Your task to perform on an android device: add a label to a message in the gmail app Image 0: 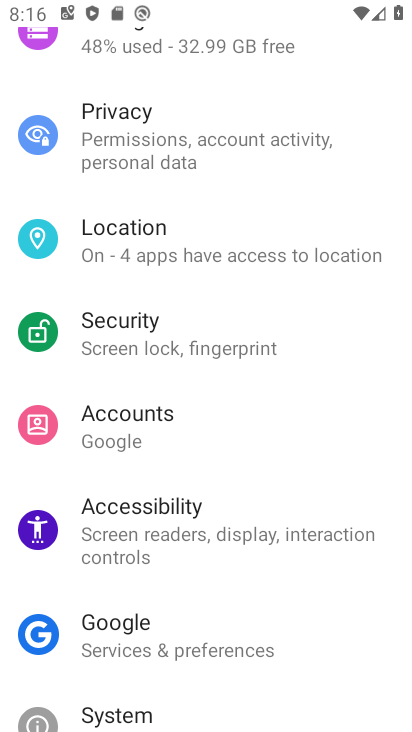
Step 0: press back button
Your task to perform on an android device: add a label to a message in the gmail app Image 1: 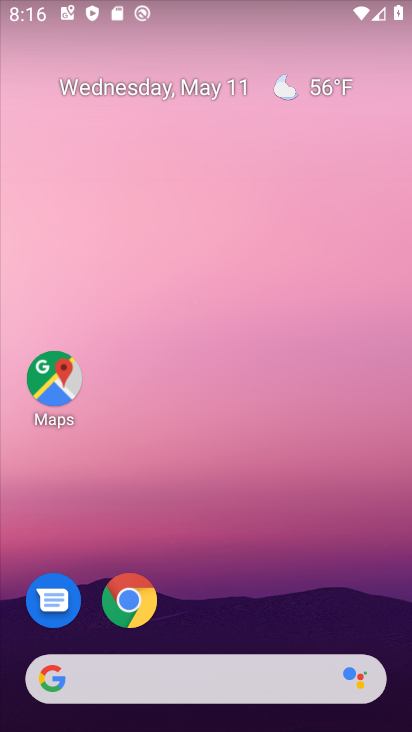
Step 1: drag from (255, 590) to (205, 49)
Your task to perform on an android device: add a label to a message in the gmail app Image 2: 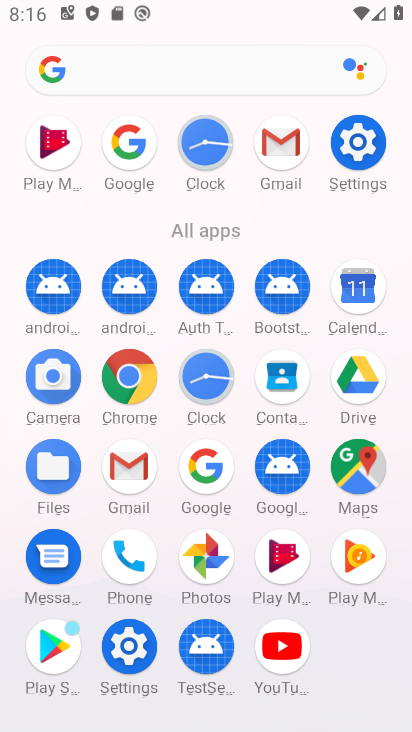
Step 2: click (279, 148)
Your task to perform on an android device: add a label to a message in the gmail app Image 3: 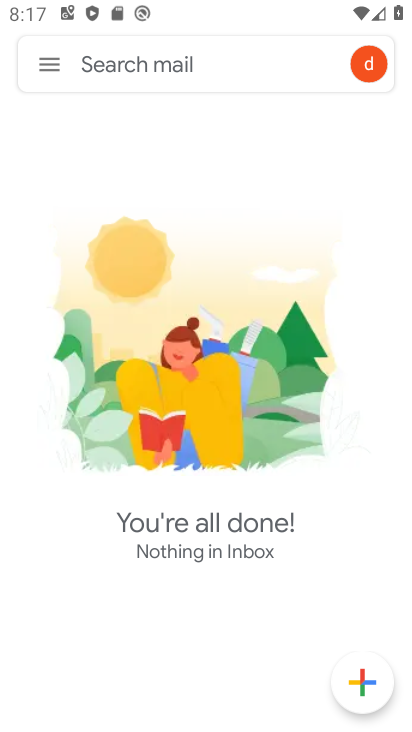
Step 3: click (53, 69)
Your task to perform on an android device: add a label to a message in the gmail app Image 4: 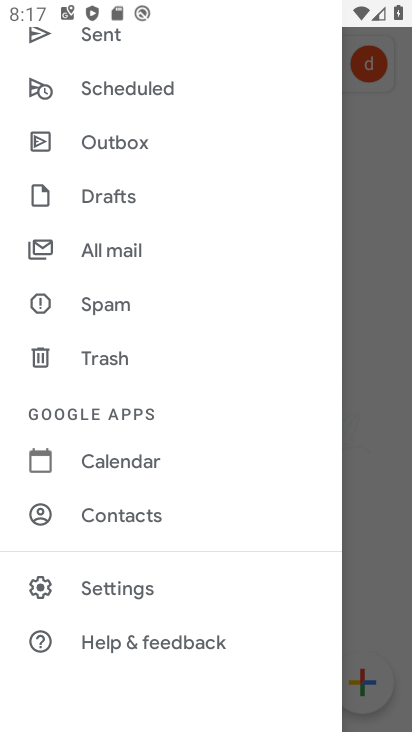
Step 4: drag from (158, 307) to (183, 411)
Your task to perform on an android device: add a label to a message in the gmail app Image 5: 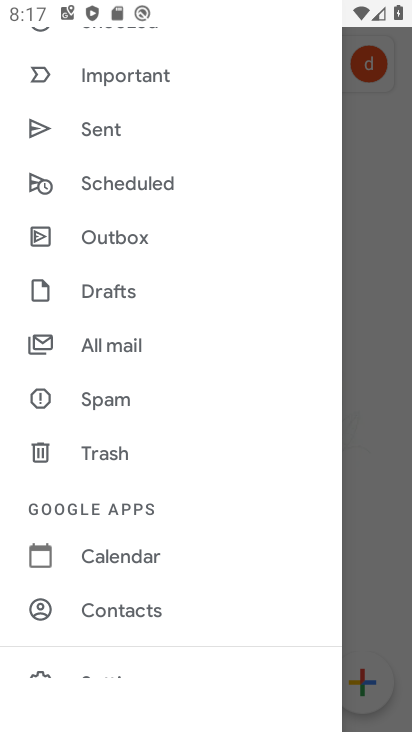
Step 5: drag from (134, 230) to (184, 364)
Your task to perform on an android device: add a label to a message in the gmail app Image 6: 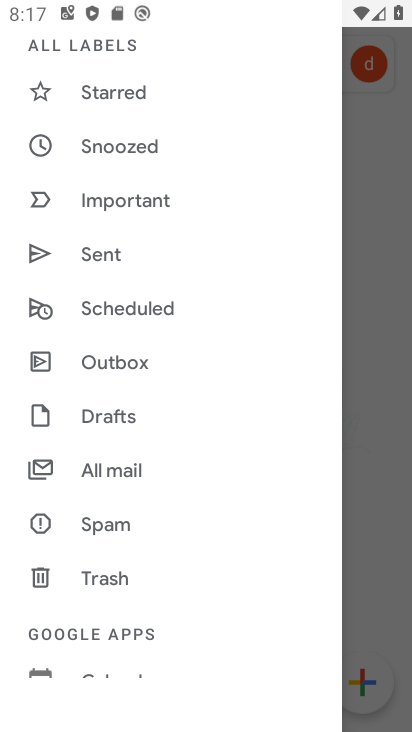
Step 6: drag from (159, 243) to (195, 368)
Your task to perform on an android device: add a label to a message in the gmail app Image 7: 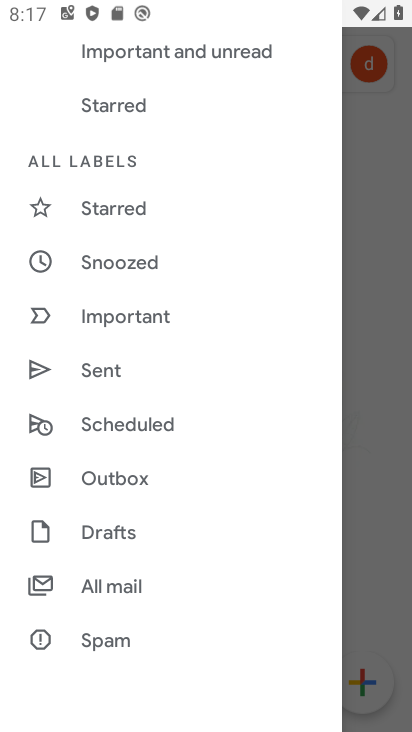
Step 7: drag from (146, 195) to (187, 350)
Your task to perform on an android device: add a label to a message in the gmail app Image 8: 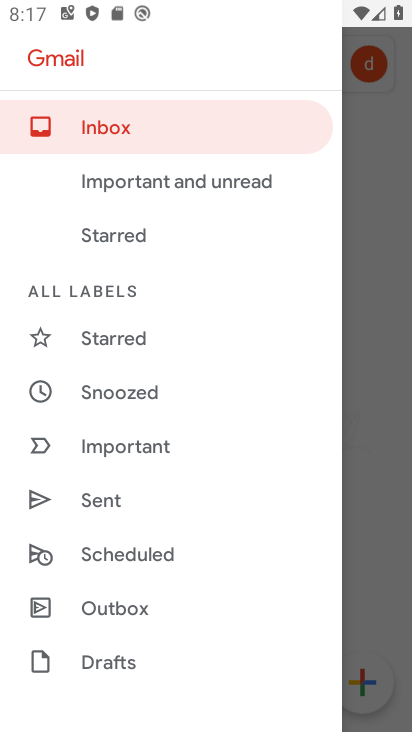
Step 8: drag from (151, 418) to (174, 328)
Your task to perform on an android device: add a label to a message in the gmail app Image 9: 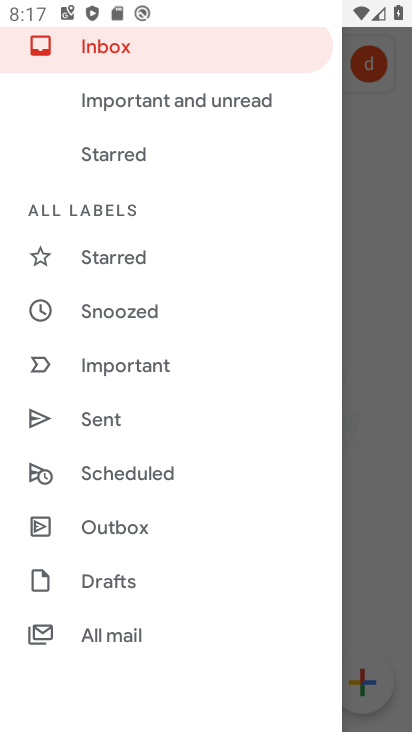
Step 9: drag from (126, 451) to (176, 369)
Your task to perform on an android device: add a label to a message in the gmail app Image 10: 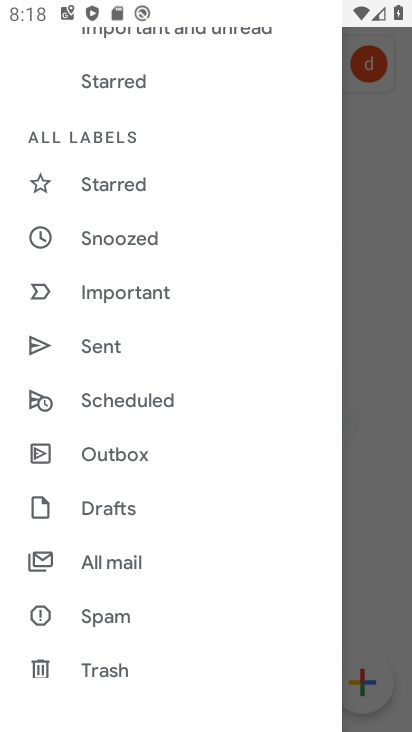
Step 10: click (124, 563)
Your task to perform on an android device: add a label to a message in the gmail app Image 11: 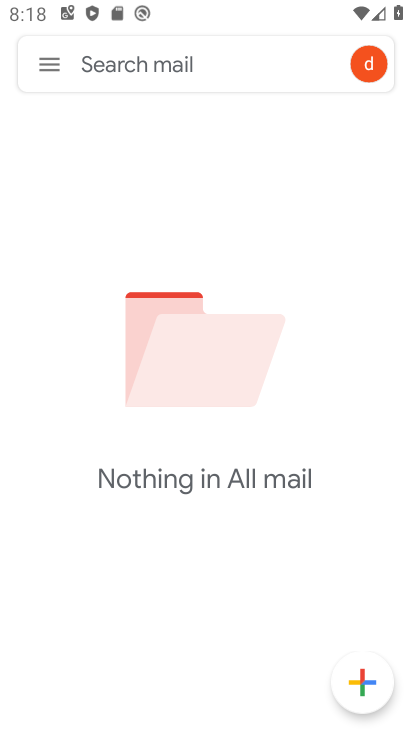
Step 11: click (50, 68)
Your task to perform on an android device: add a label to a message in the gmail app Image 12: 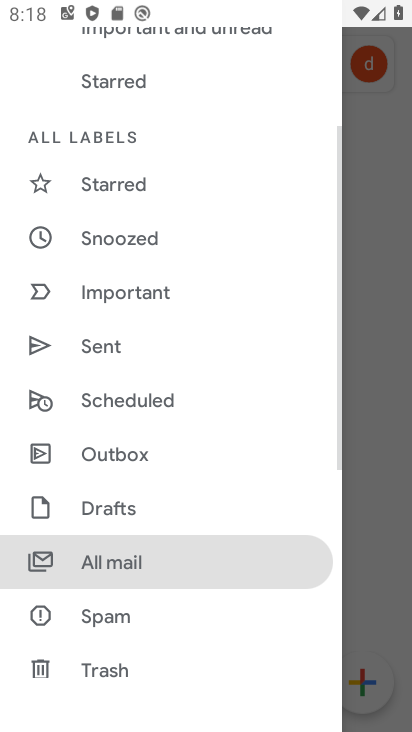
Step 12: drag from (162, 187) to (205, 392)
Your task to perform on an android device: add a label to a message in the gmail app Image 13: 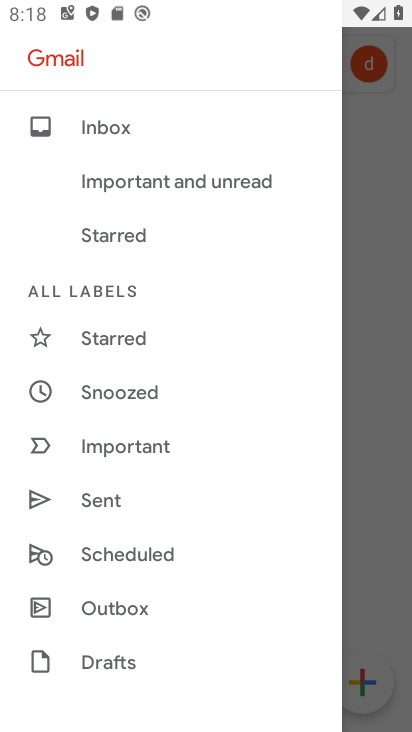
Step 13: click (126, 136)
Your task to perform on an android device: add a label to a message in the gmail app Image 14: 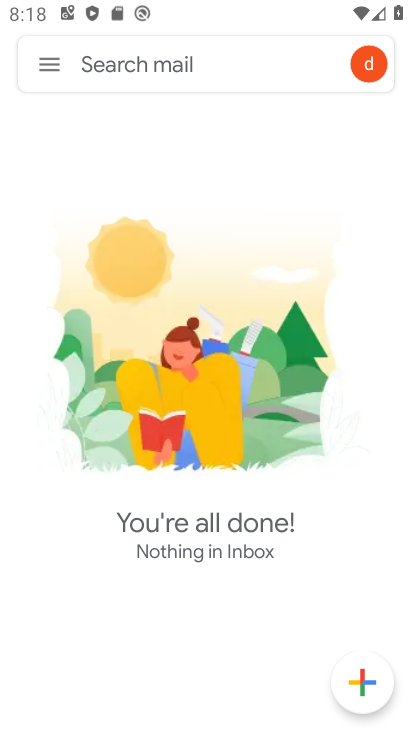
Step 14: task complete